Your task to perform on an android device: all mails in gmail Image 0: 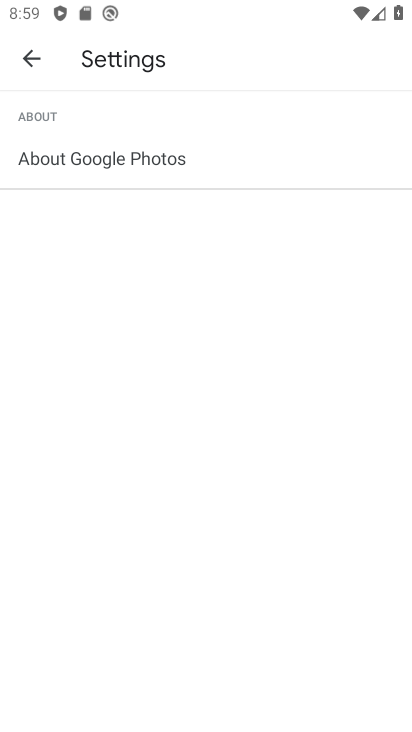
Step 0: task complete